Your task to perform on an android device: set the timer Image 0: 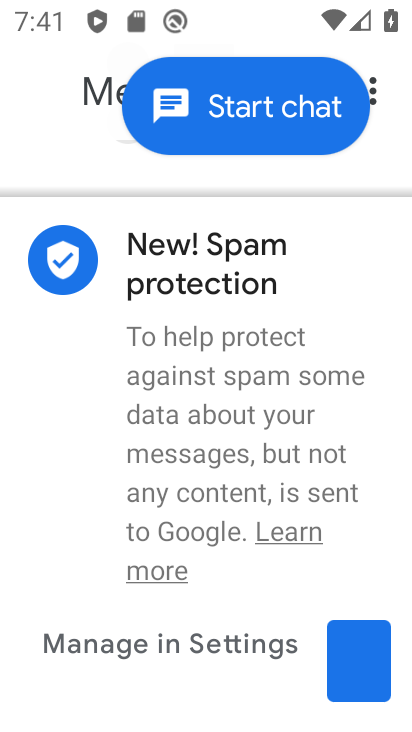
Step 0: press home button
Your task to perform on an android device: set the timer Image 1: 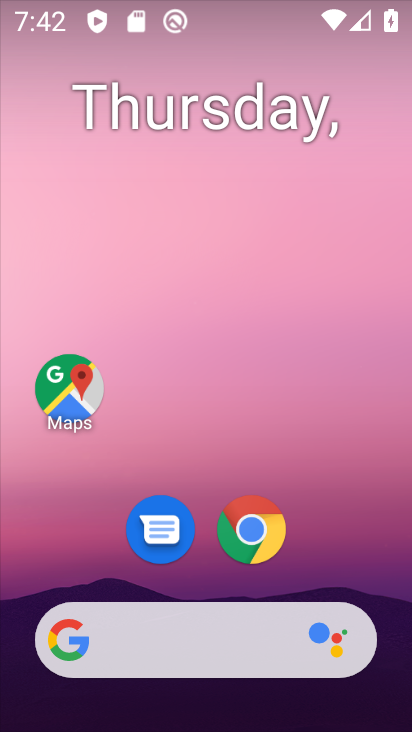
Step 1: drag from (212, 580) to (321, 44)
Your task to perform on an android device: set the timer Image 2: 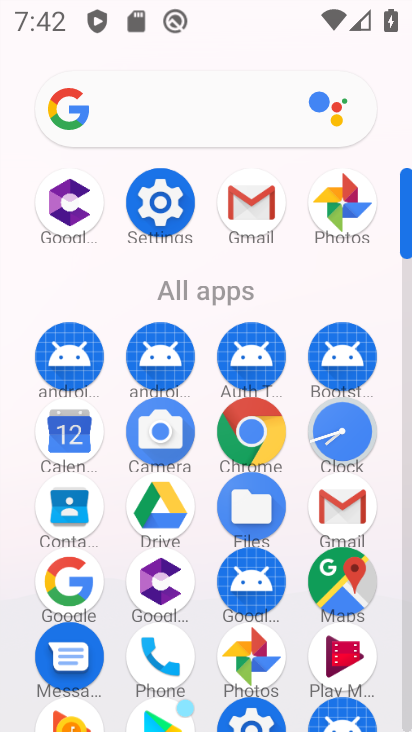
Step 2: click (343, 441)
Your task to perform on an android device: set the timer Image 3: 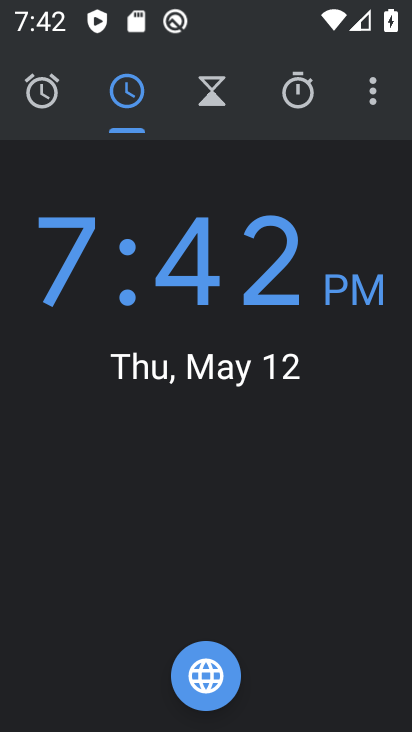
Step 3: click (230, 110)
Your task to perform on an android device: set the timer Image 4: 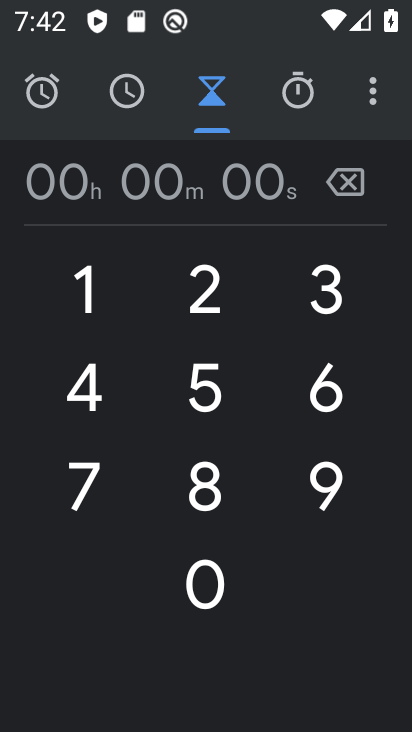
Step 4: task complete